Your task to perform on an android device: empty trash in google photos Image 0: 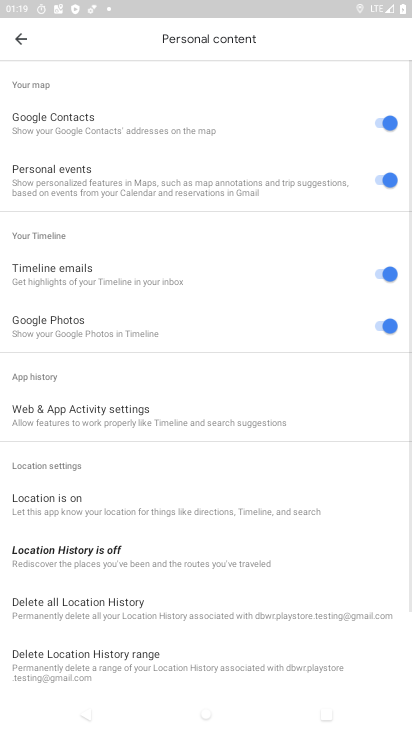
Step 0: press home button
Your task to perform on an android device: empty trash in google photos Image 1: 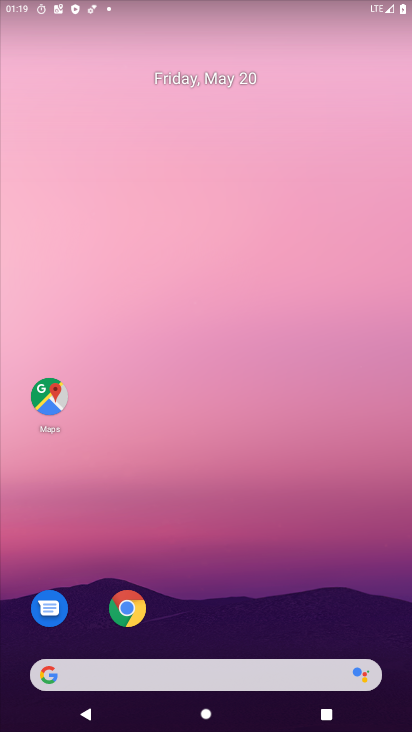
Step 1: drag from (380, 618) to (357, 106)
Your task to perform on an android device: empty trash in google photos Image 2: 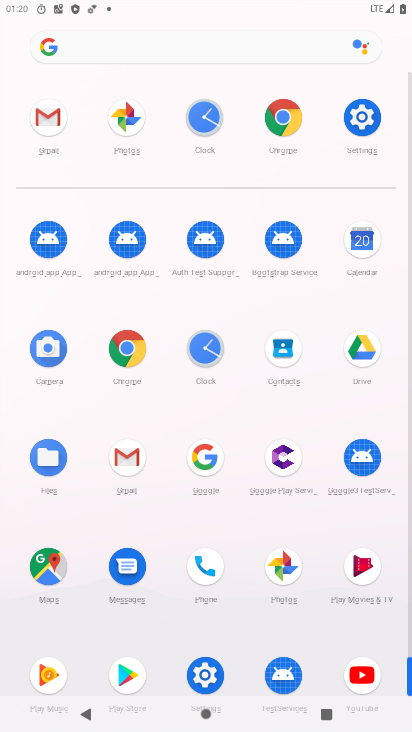
Step 2: click (300, 551)
Your task to perform on an android device: empty trash in google photos Image 3: 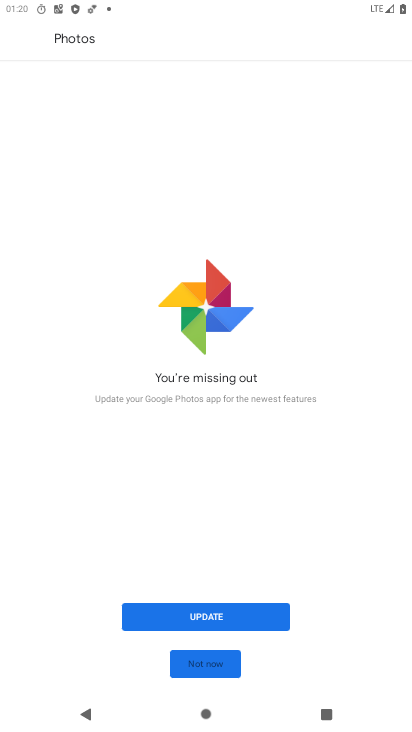
Step 3: click (244, 617)
Your task to perform on an android device: empty trash in google photos Image 4: 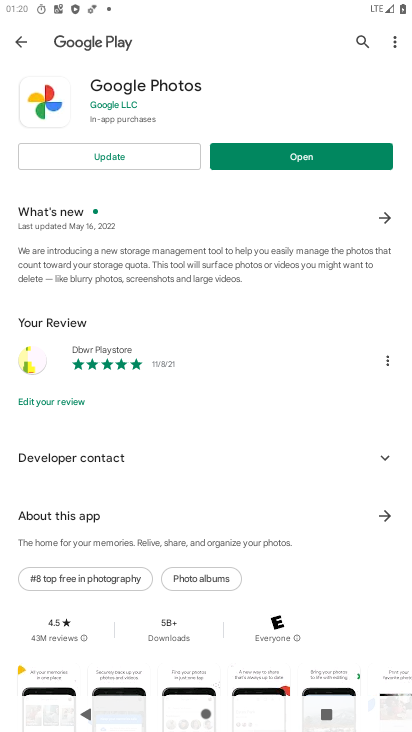
Step 4: click (171, 156)
Your task to perform on an android device: empty trash in google photos Image 5: 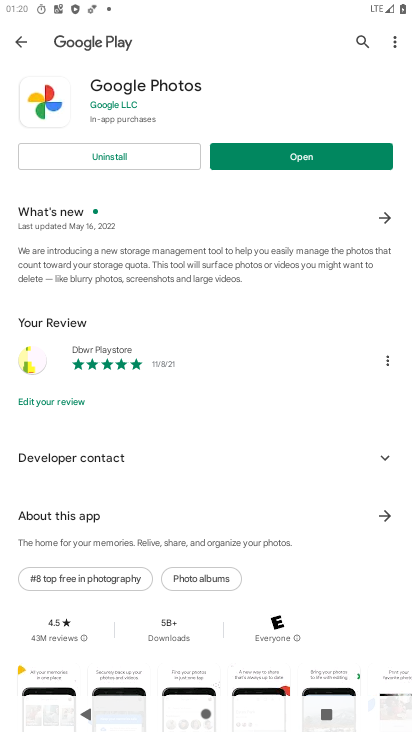
Step 5: click (343, 160)
Your task to perform on an android device: empty trash in google photos Image 6: 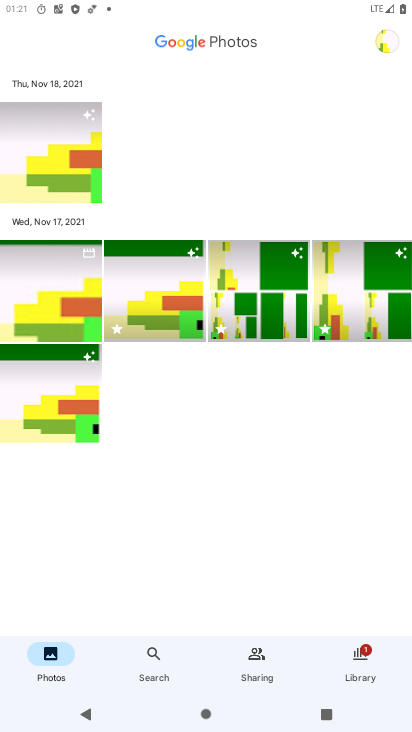
Step 6: click (353, 665)
Your task to perform on an android device: empty trash in google photos Image 7: 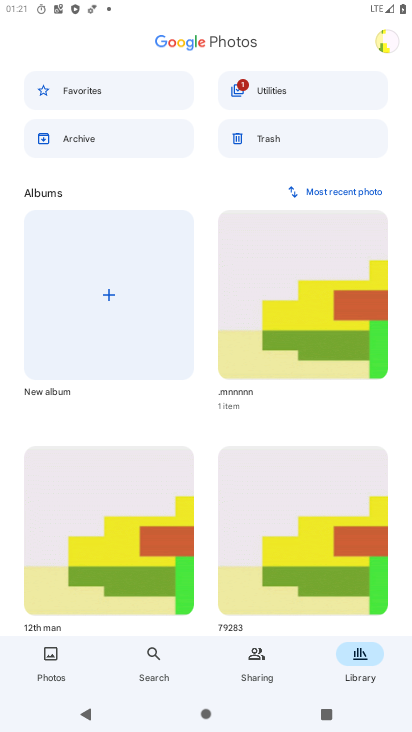
Step 7: click (280, 141)
Your task to perform on an android device: empty trash in google photos Image 8: 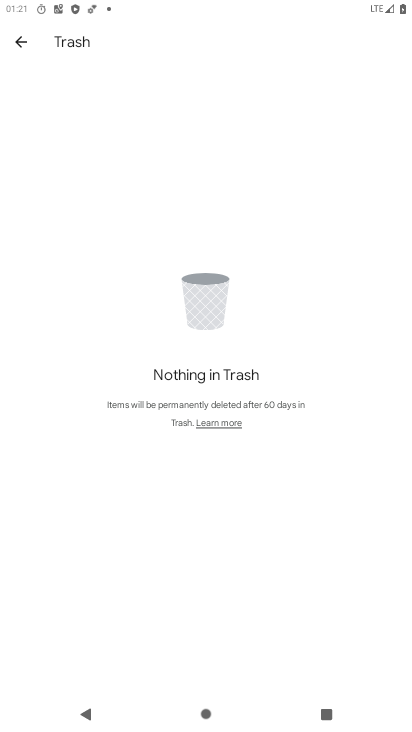
Step 8: task complete